Your task to perform on an android device: Open Google Chrome Image 0: 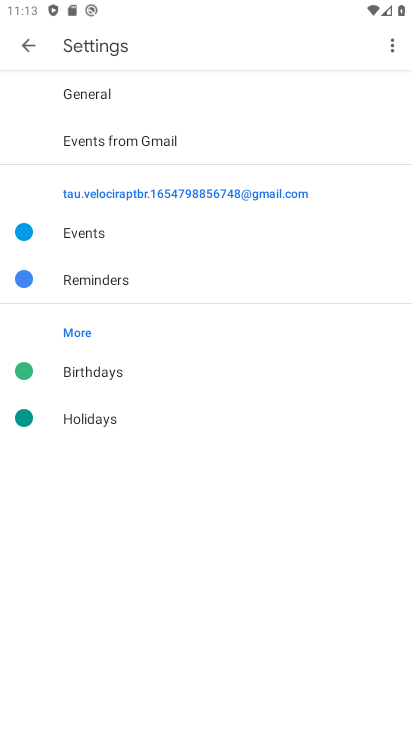
Step 0: press home button
Your task to perform on an android device: Open Google Chrome Image 1: 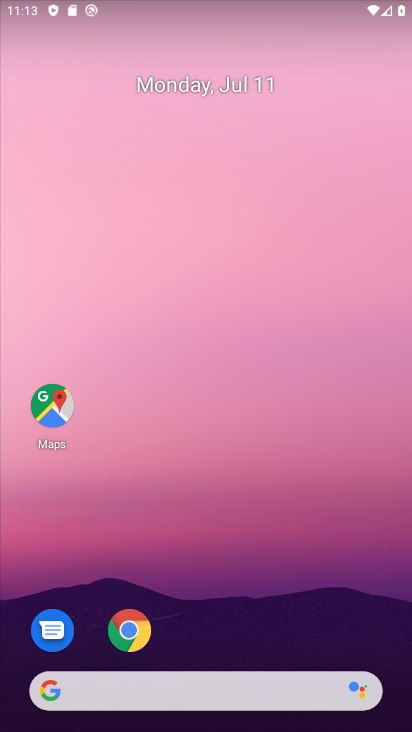
Step 1: click (142, 629)
Your task to perform on an android device: Open Google Chrome Image 2: 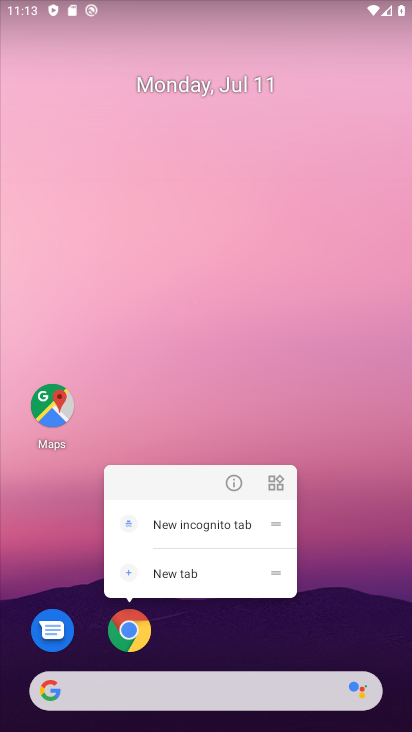
Step 2: click (142, 628)
Your task to perform on an android device: Open Google Chrome Image 3: 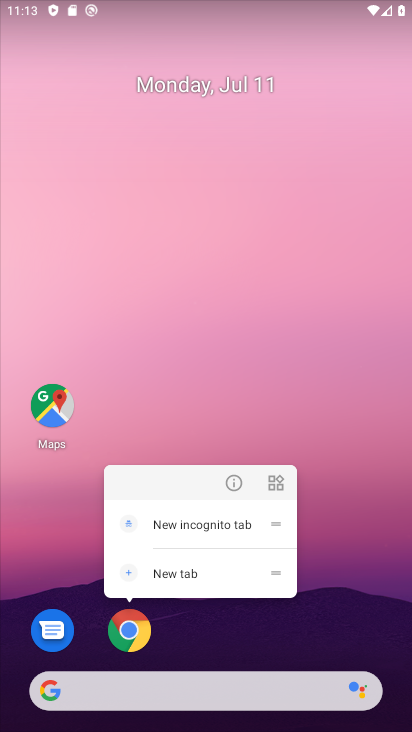
Step 3: click (143, 628)
Your task to perform on an android device: Open Google Chrome Image 4: 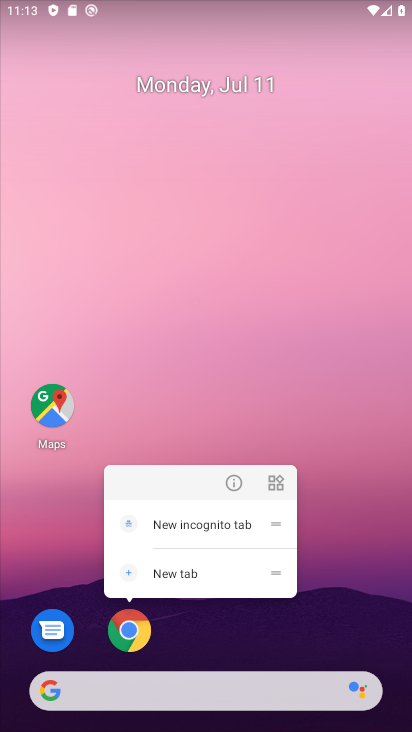
Step 4: click (128, 631)
Your task to perform on an android device: Open Google Chrome Image 5: 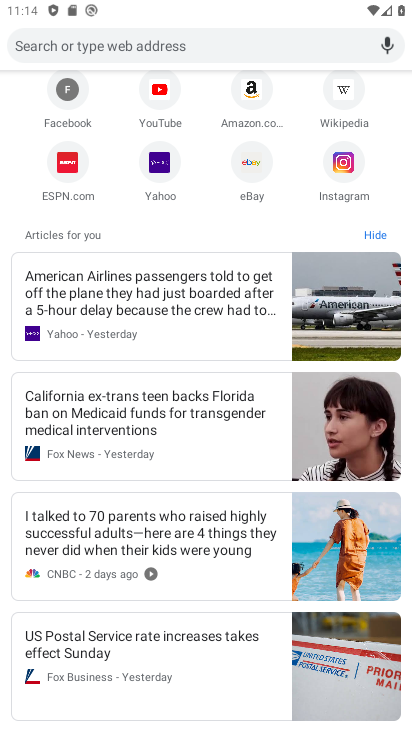
Step 5: task complete